Your task to perform on an android device: turn on showing notifications on the lock screen Image 0: 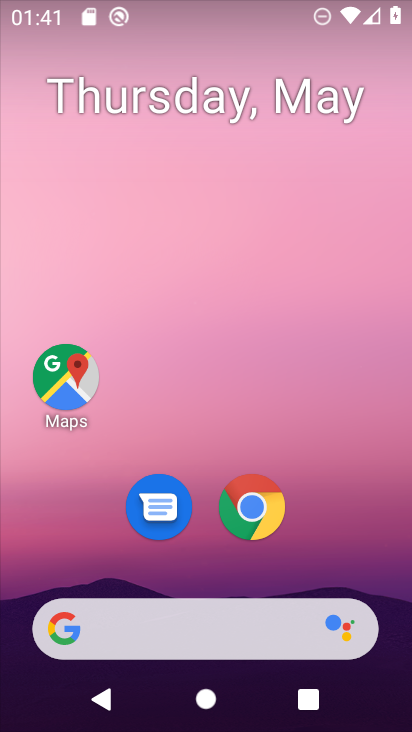
Step 0: drag from (383, 539) to (311, 116)
Your task to perform on an android device: turn on showing notifications on the lock screen Image 1: 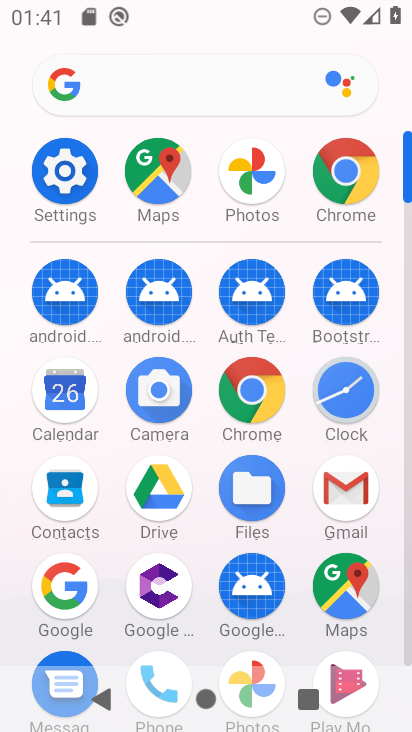
Step 1: click (61, 191)
Your task to perform on an android device: turn on showing notifications on the lock screen Image 2: 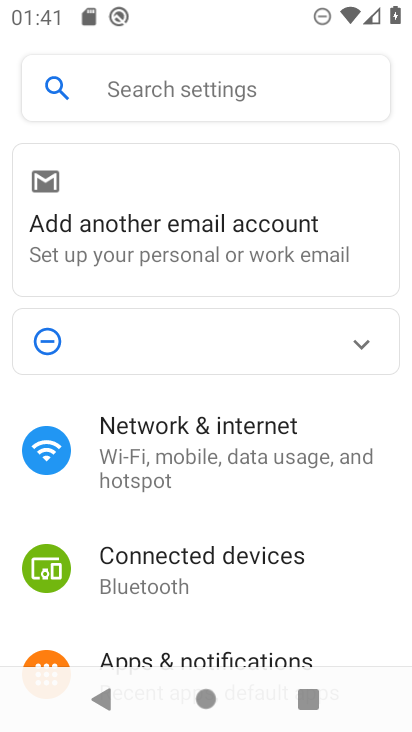
Step 2: click (258, 666)
Your task to perform on an android device: turn on showing notifications on the lock screen Image 3: 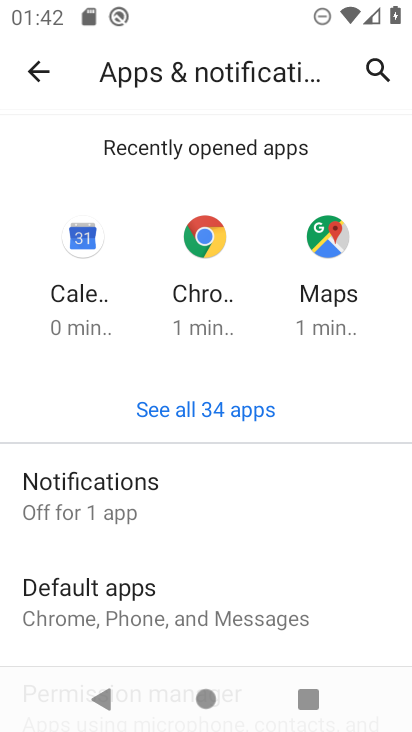
Step 3: drag from (171, 561) to (165, 129)
Your task to perform on an android device: turn on showing notifications on the lock screen Image 4: 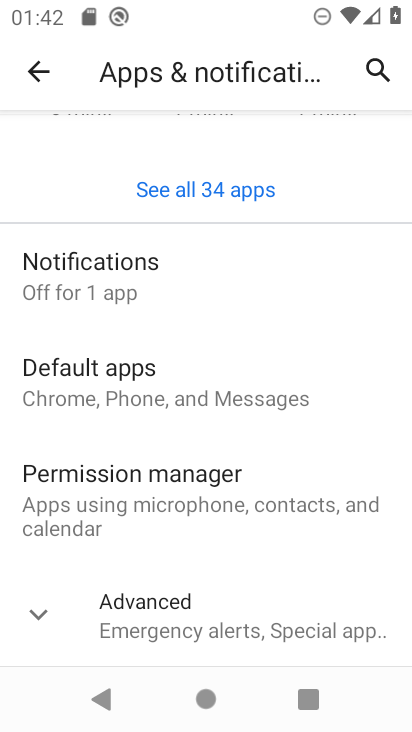
Step 4: click (140, 257)
Your task to perform on an android device: turn on showing notifications on the lock screen Image 5: 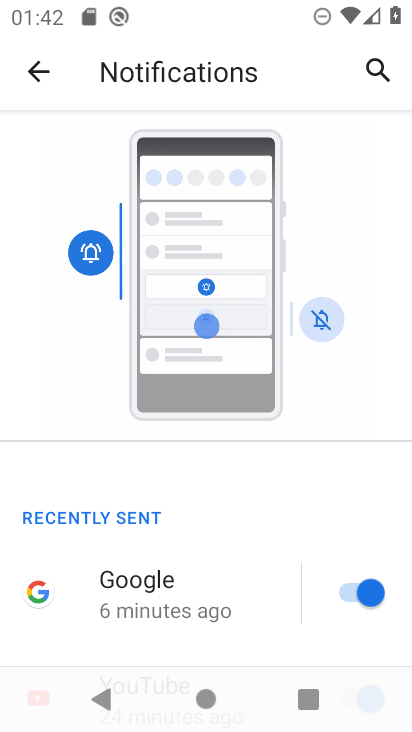
Step 5: drag from (198, 571) to (189, 218)
Your task to perform on an android device: turn on showing notifications on the lock screen Image 6: 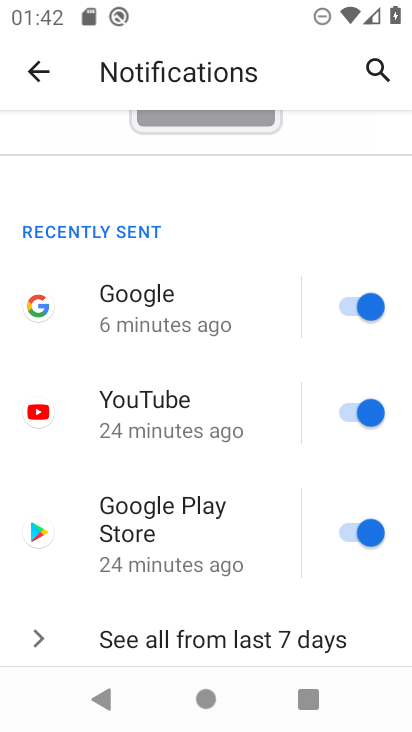
Step 6: drag from (218, 560) to (195, 411)
Your task to perform on an android device: turn on showing notifications on the lock screen Image 7: 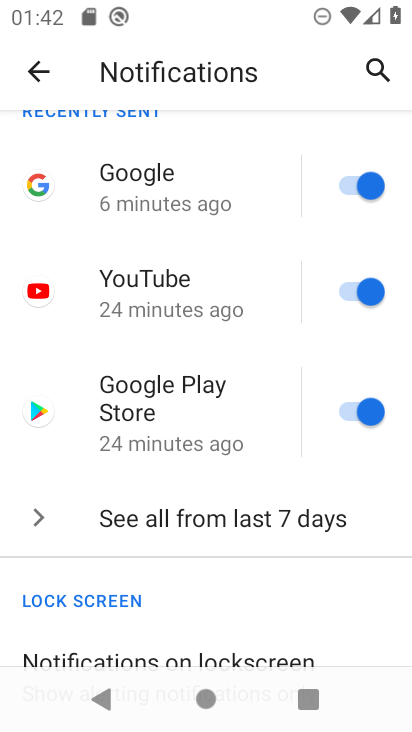
Step 7: drag from (201, 602) to (200, 94)
Your task to perform on an android device: turn on showing notifications on the lock screen Image 8: 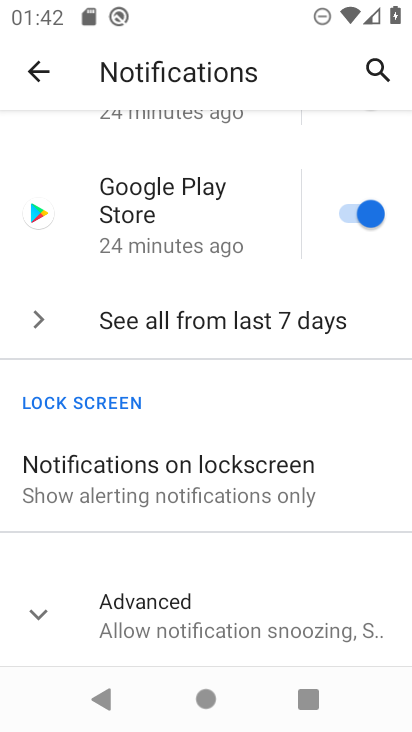
Step 8: click (221, 552)
Your task to perform on an android device: turn on showing notifications on the lock screen Image 9: 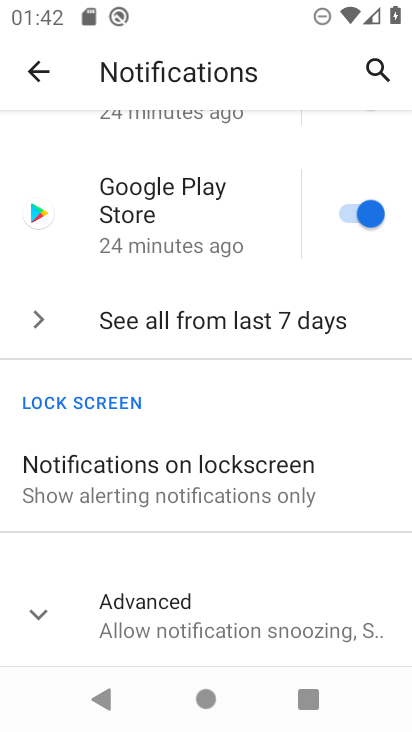
Step 9: drag from (224, 558) to (218, 200)
Your task to perform on an android device: turn on showing notifications on the lock screen Image 10: 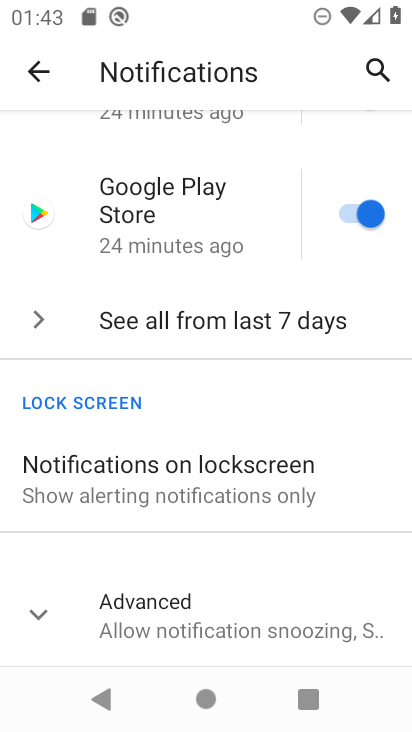
Step 10: click (198, 579)
Your task to perform on an android device: turn on showing notifications on the lock screen Image 11: 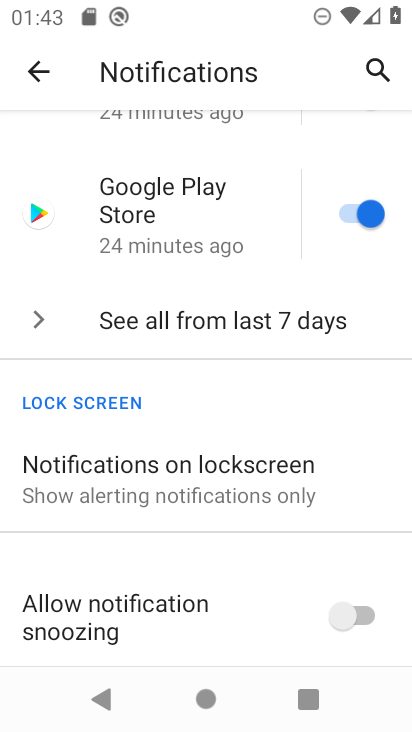
Step 11: drag from (198, 579) to (212, 255)
Your task to perform on an android device: turn on showing notifications on the lock screen Image 12: 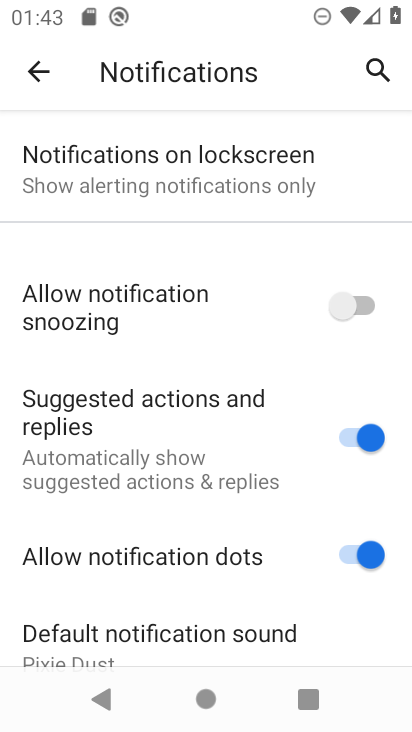
Step 12: click (139, 199)
Your task to perform on an android device: turn on showing notifications on the lock screen Image 13: 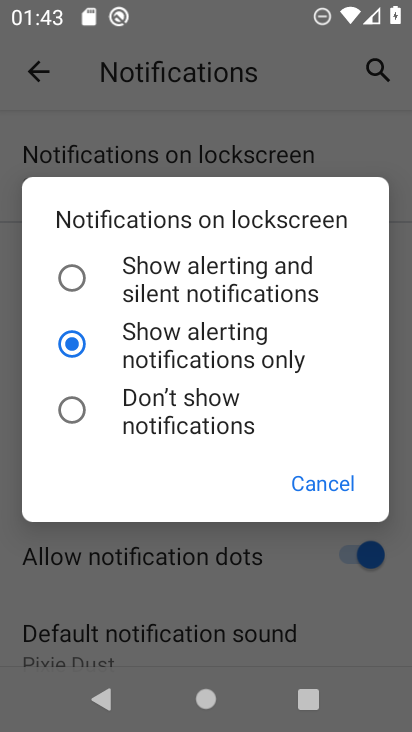
Step 13: click (170, 288)
Your task to perform on an android device: turn on showing notifications on the lock screen Image 14: 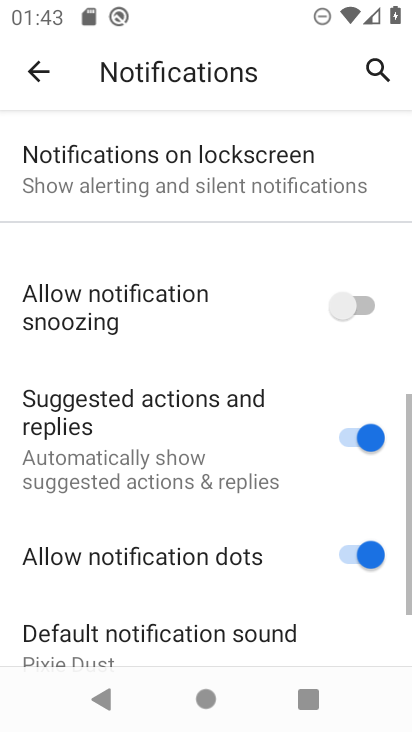
Step 14: task complete